Your task to perform on an android device: Toggle the flashlight Image 0: 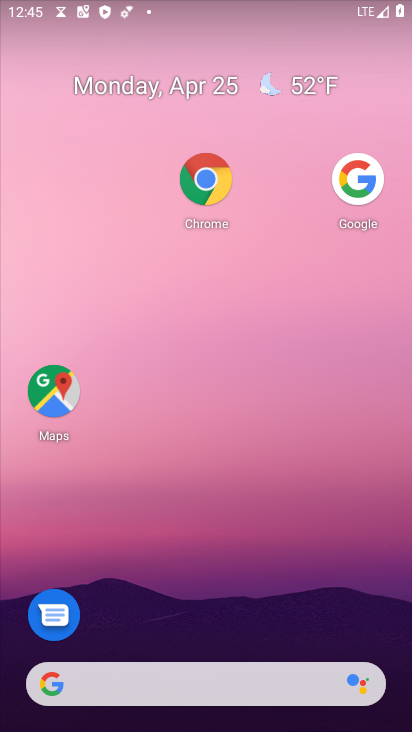
Step 0: drag from (236, 2) to (173, 494)
Your task to perform on an android device: Toggle the flashlight Image 1: 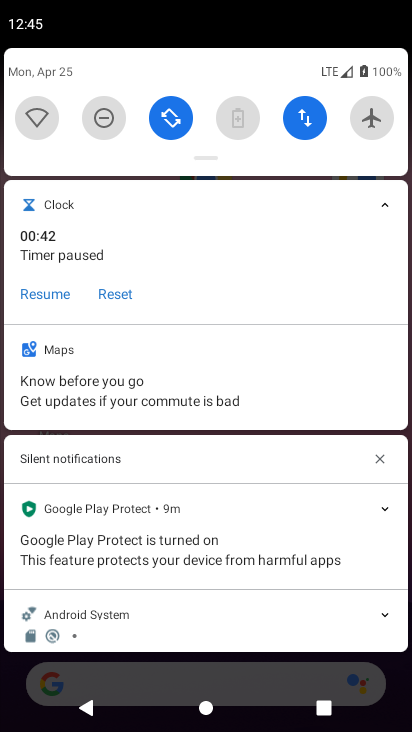
Step 1: task complete